Your task to perform on an android device: open a bookmark in the chrome app Image 0: 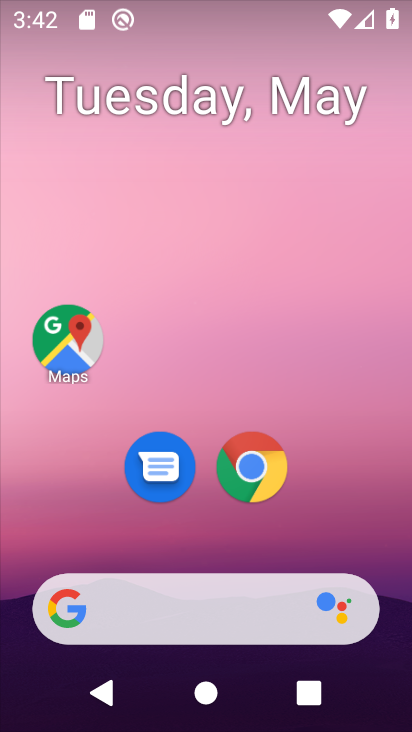
Step 0: click (260, 462)
Your task to perform on an android device: open a bookmark in the chrome app Image 1: 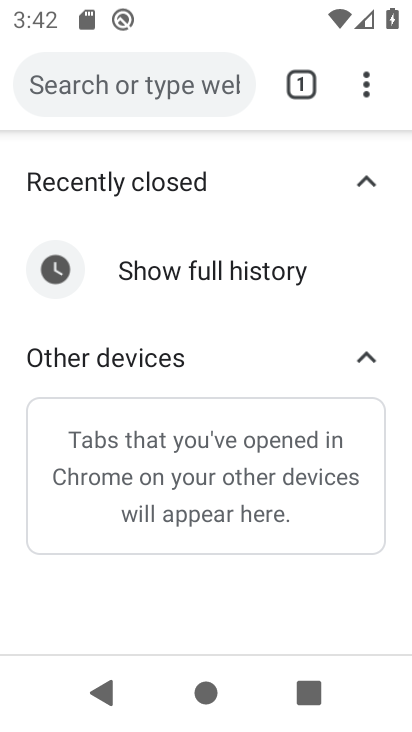
Step 1: click (370, 81)
Your task to perform on an android device: open a bookmark in the chrome app Image 2: 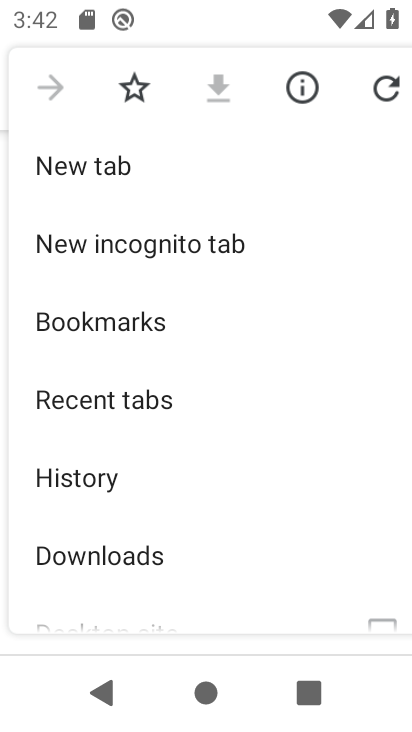
Step 2: click (95, 318)
Your task to perform on an android device: open a bookmark in the chrome app Image 3: 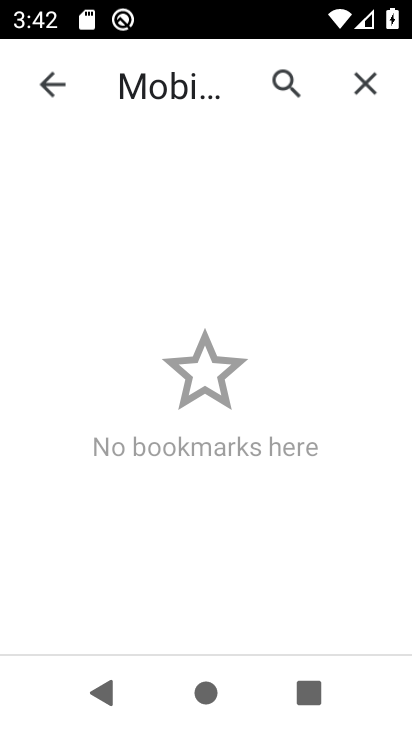
Step 3: task complete